Your task to perform on an android device: What's the weather going to be this weekend? Image 0: 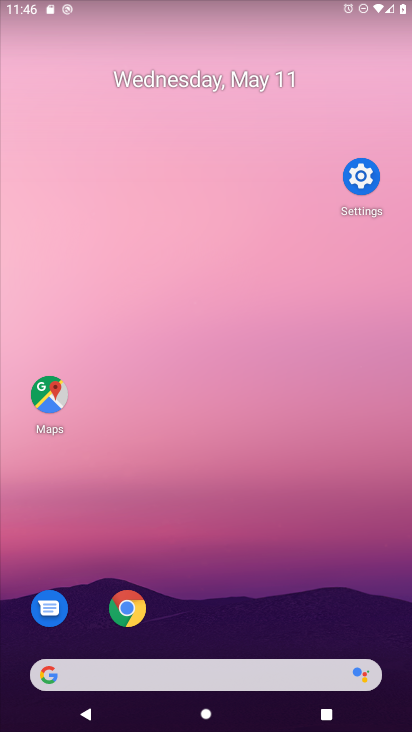
Step 0: drag from (13, 216) to (391, 402)
Your task to perform on an android device: What's the weather going to be this weekend? Image 1: 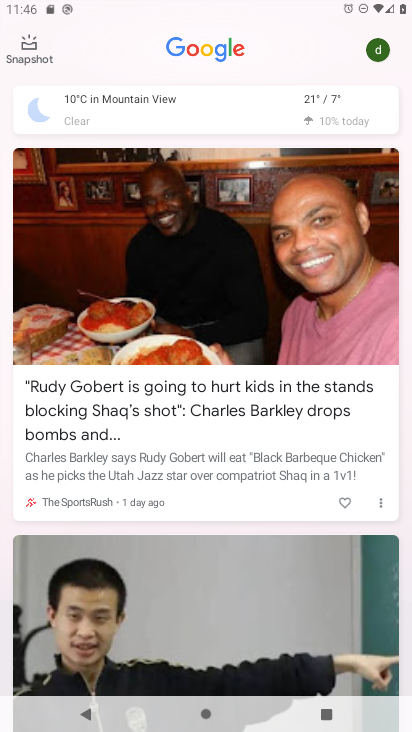
Step 1: click (154, 122)
Your task to perform on an android device: What's the weather going to be this weekend? Image 2: 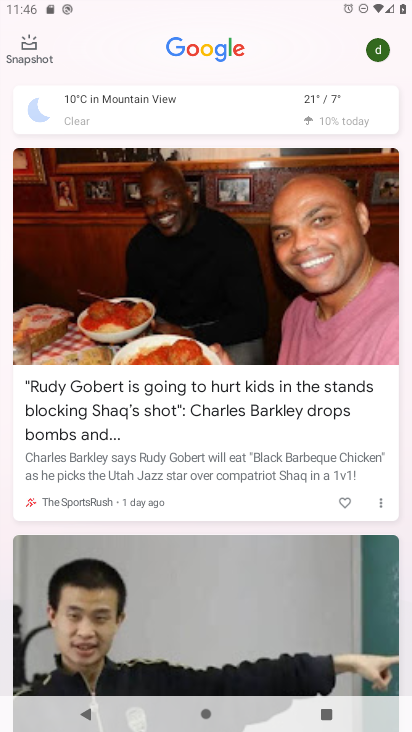
Step 2: click (154, 121)
Your task to perform on an android device: What's the weather going to be this weekend? Image 3: 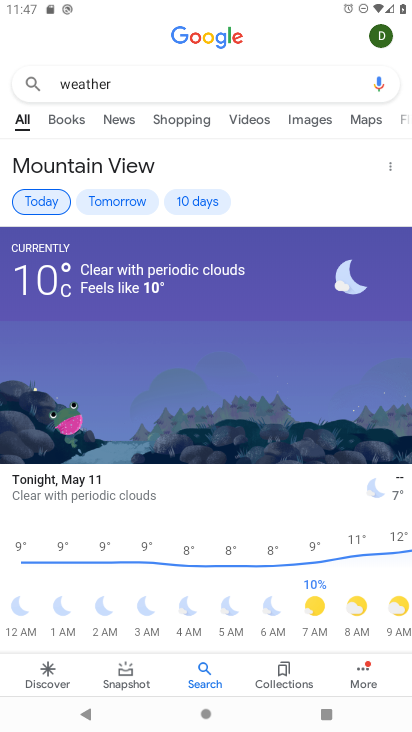
Step 3: task complete